Your task to perform on an android device: Go to internet settings Image 0: 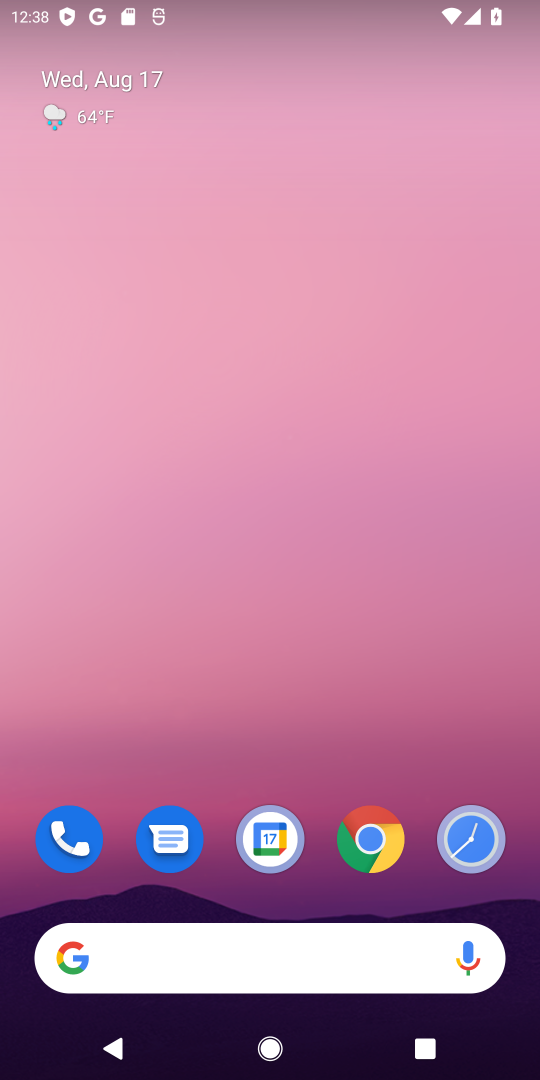
Step 0: drag from (262, 945) to (237, 299)
Your task to perform on an android device: Go to internet settings Image 1: 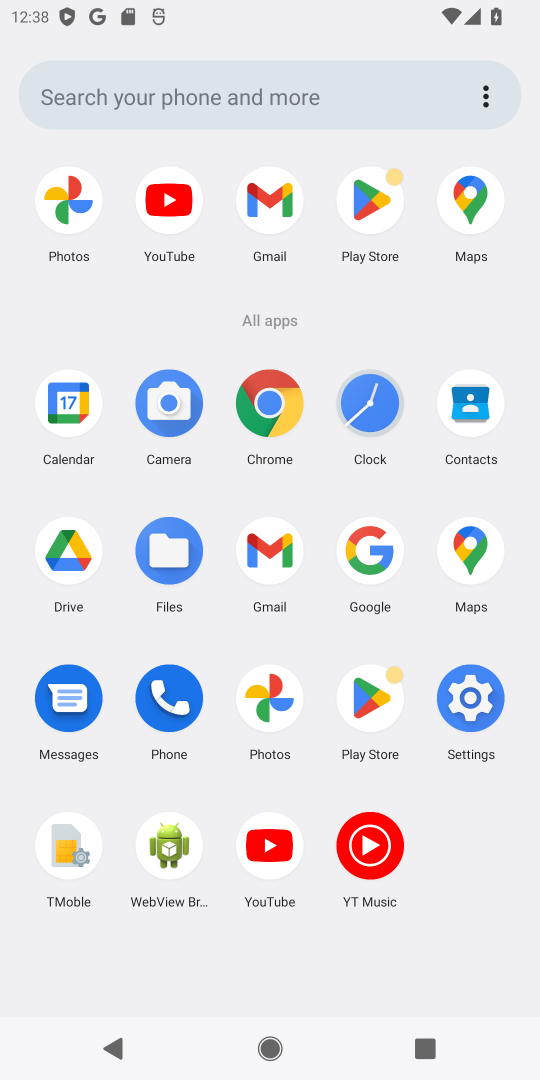
Step 1: click (470, 696)
Your task to perform on an android device: Go to internet settings Image 2: 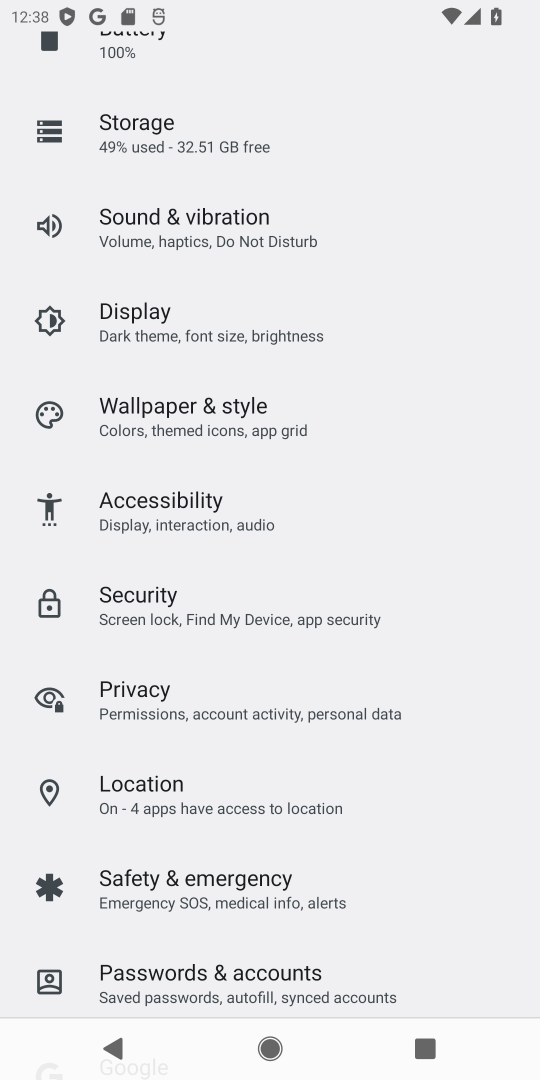
Step 2: drag from (244, 197) to (273, 486)
Your task to perform on an android device: Go to internet settings Image 3: 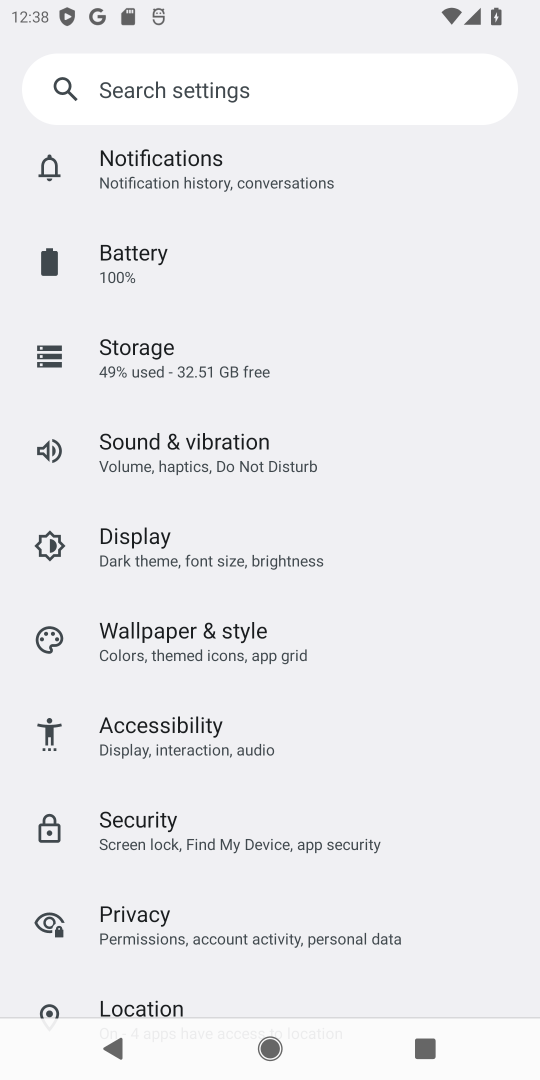
Step 3: drag from (215, 311) to (281, 624)
Your task to perform on an android device: Go to internet settings Image 4: 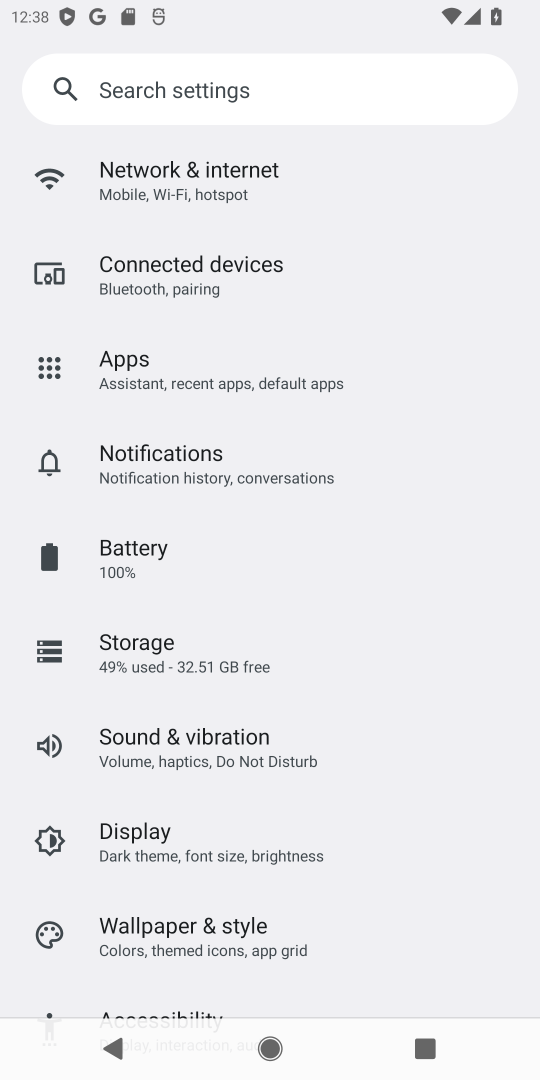
Step 4: click (160, 168)
Your task to perform on an android device: Go to internet settings Image 5: 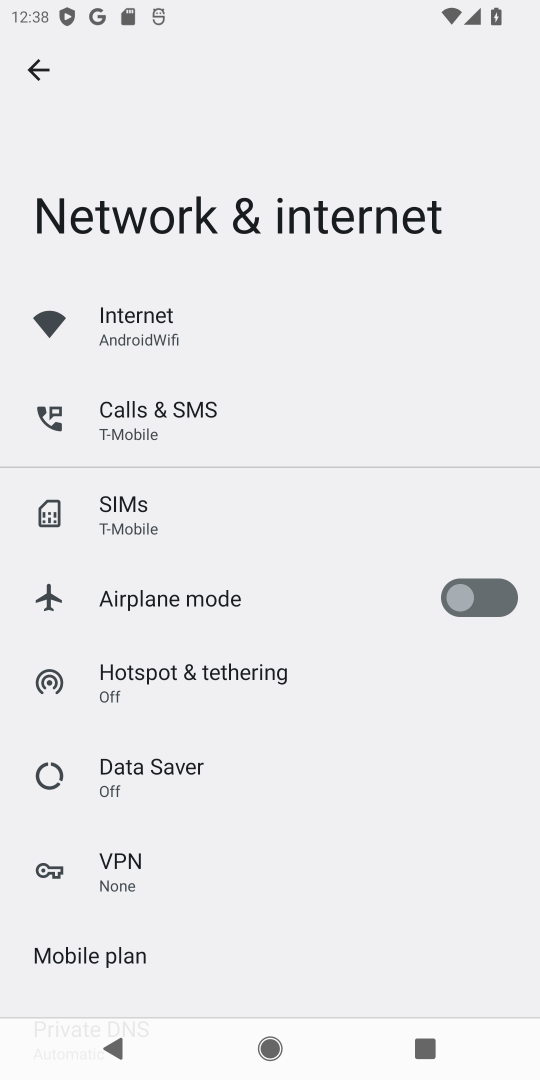
Step 5: click (141, 329)
Your task to perform on an android device: Go to internet settings Image 6: 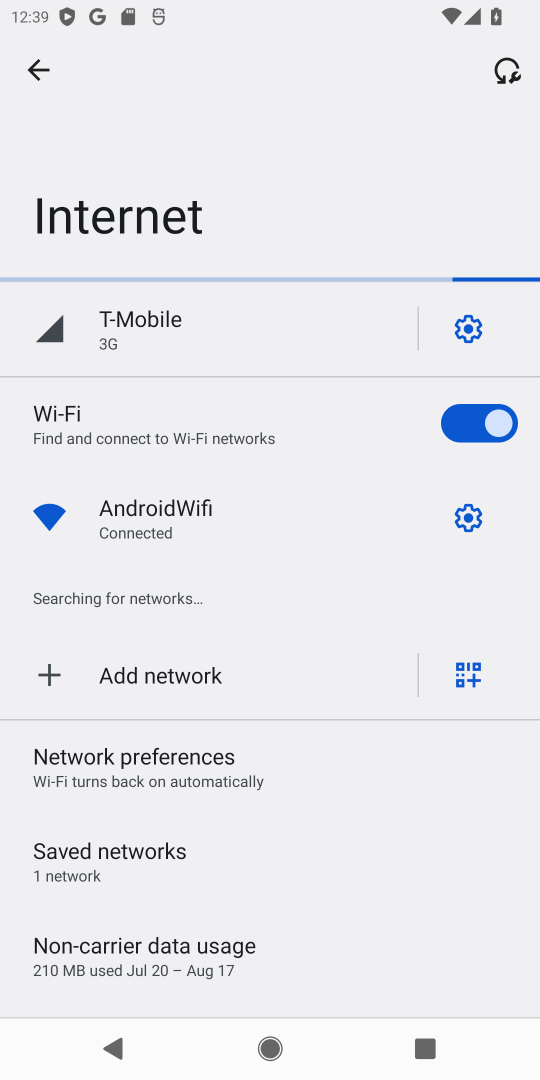
Step 6: task complete